Your task to perform on an android device: What's the weather going to be this weekend? Image 0: 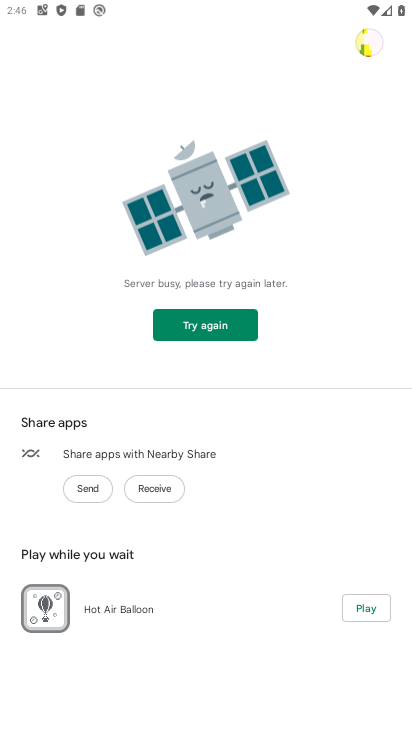
Step 0: press back button
Your task to perform on an android device: What's the weather going to be this weekend? Image 1: 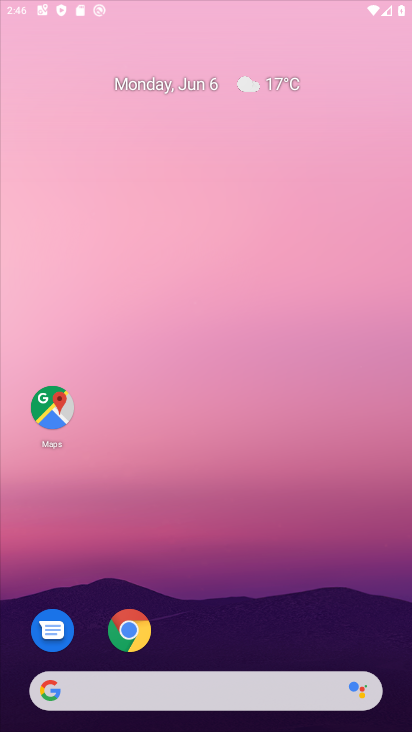
Step 1: press back button
Your task to perform on an android device: What's the weather going to be this weekend? Image 2: 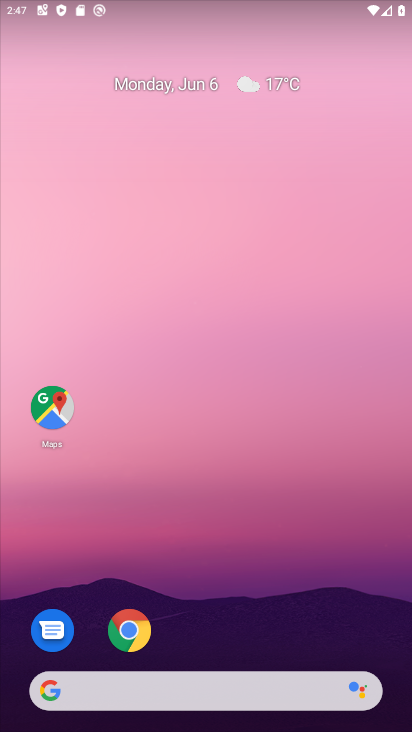
Step 2: drag from (257, 485) to (283, 71)
Your task to perform on an android device: What's the weather going to be this weekend? Image 3: 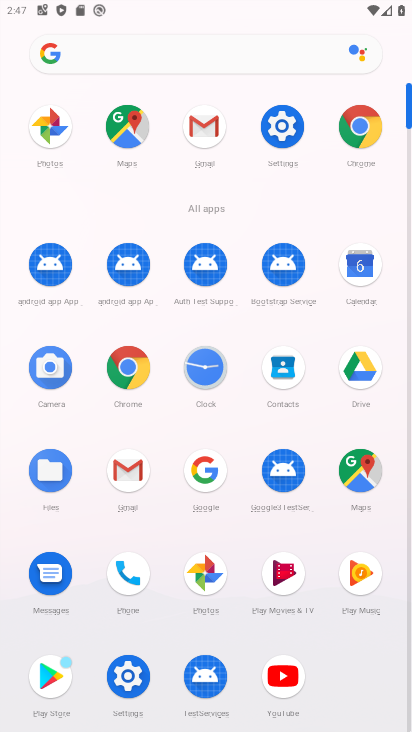
Step 3: press back button
Your task to perform on an android device: What's the weather going to be this weekend? Image 4: 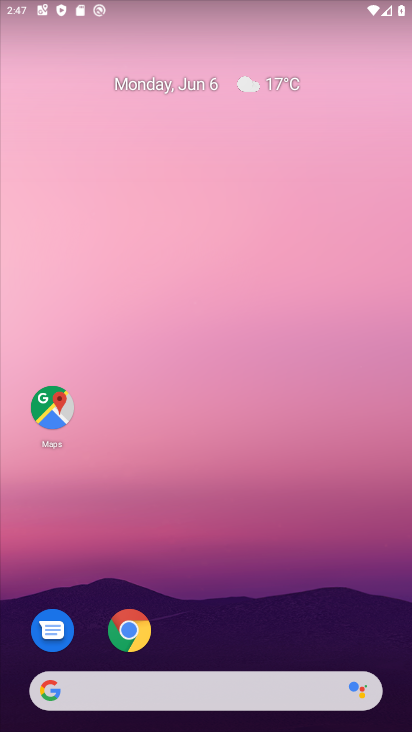
Step 4: click (248, 81)
Your task to perform on an android device: What's the weather going to be this weekend? Image 5: 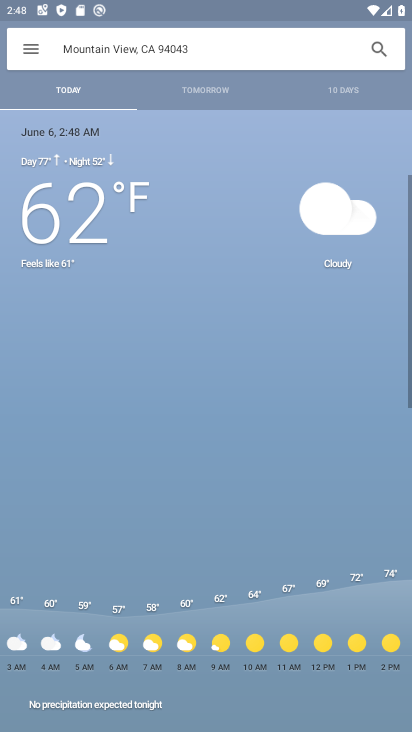
Step 5: click (334, 91)
Your task to perform on an android device: What's the weather going to be this weekend? Image 6: 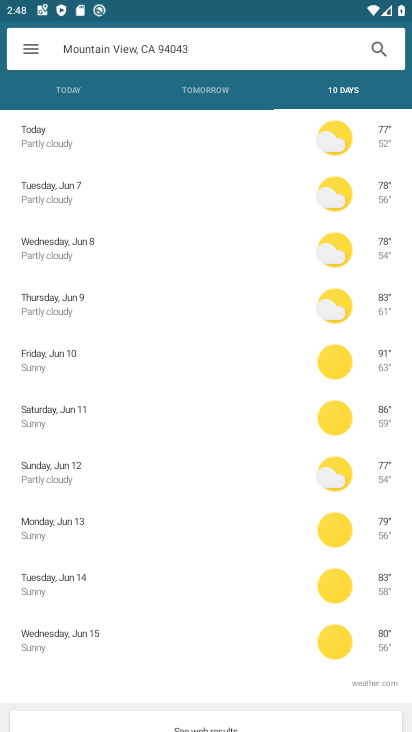
Step 6: task complete